Your task to perform on an android device: Go to calendar. Show me events next week Image 0: 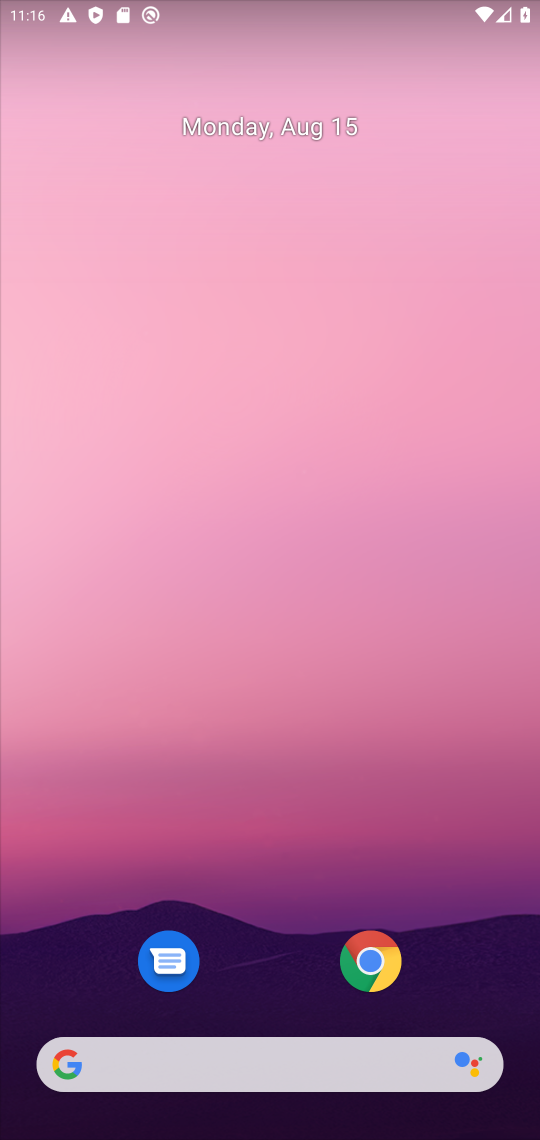
Step 0: drag from (474, 908) to (394, 303)
Your task to perform on an android device: Go to calendar. Show me events next week Image 1: 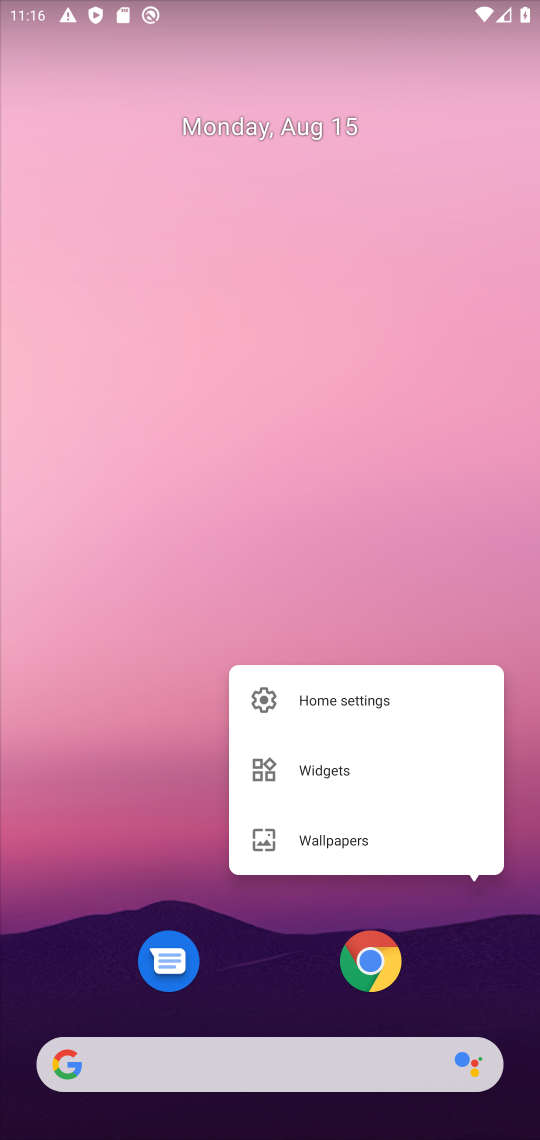
Step 1: click (435, 439)
Your task to perform on an android device: Go to calendar. Show me events next week Image 2: 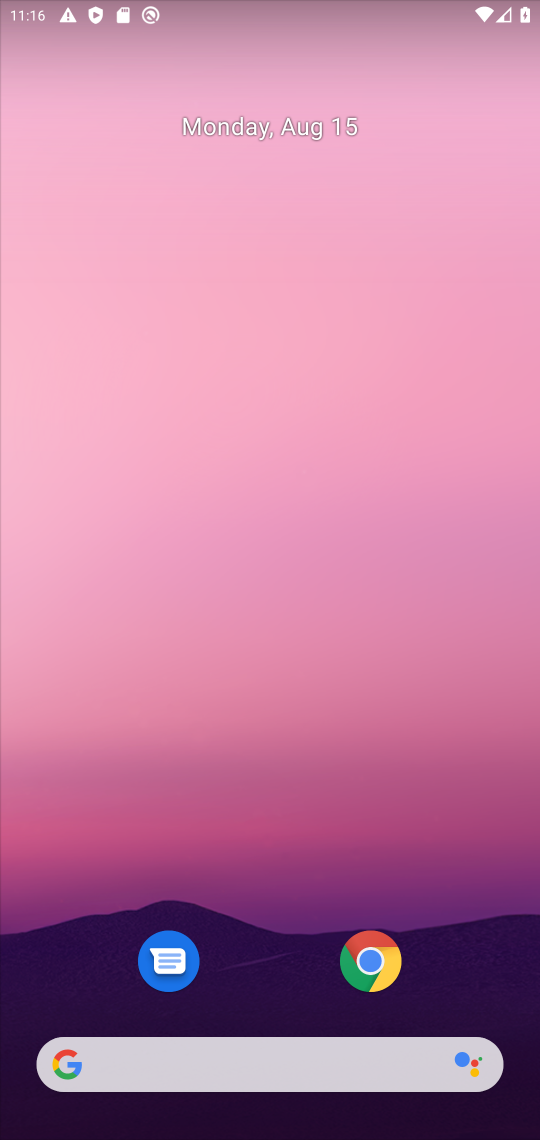
Step 2: drag from (480, 879) to (346, 186)
Your task to perform on an android device: Go to calendar. Show me events next week Image 3: 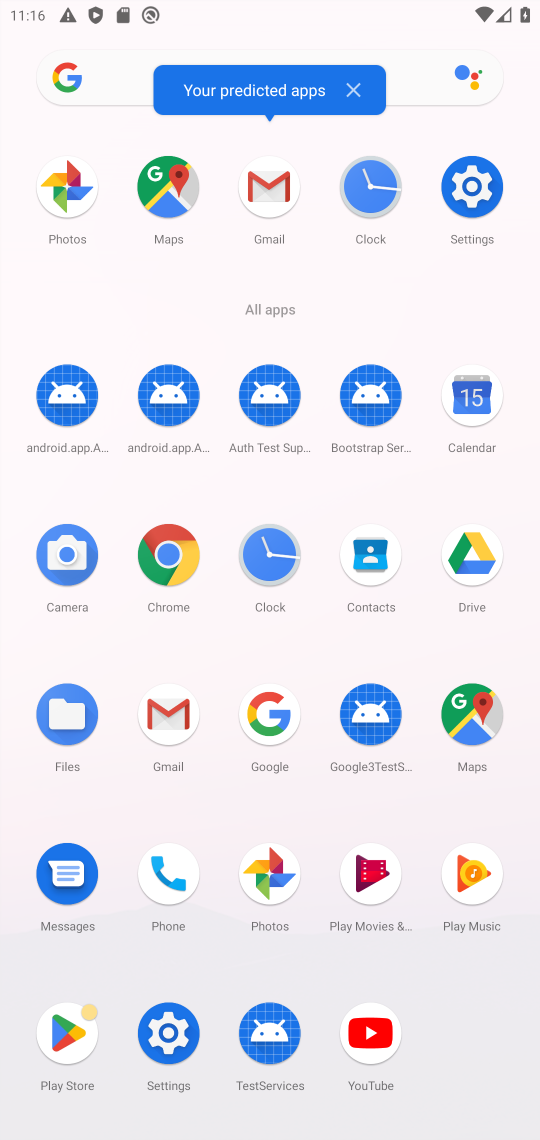
Step 3: click (470, 403)
Your task to perform on an android device: Go to calendar. Show me events next week Image 4: 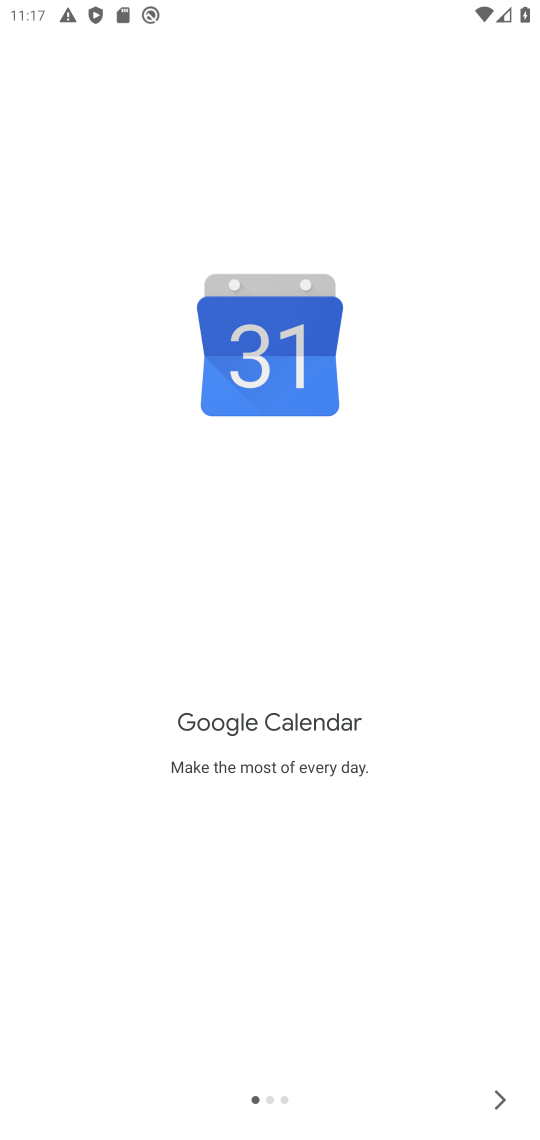
Step 4: click (498, 1104)
Your task to perform on an android device: Go to calendar. Show me events next week Image 5: 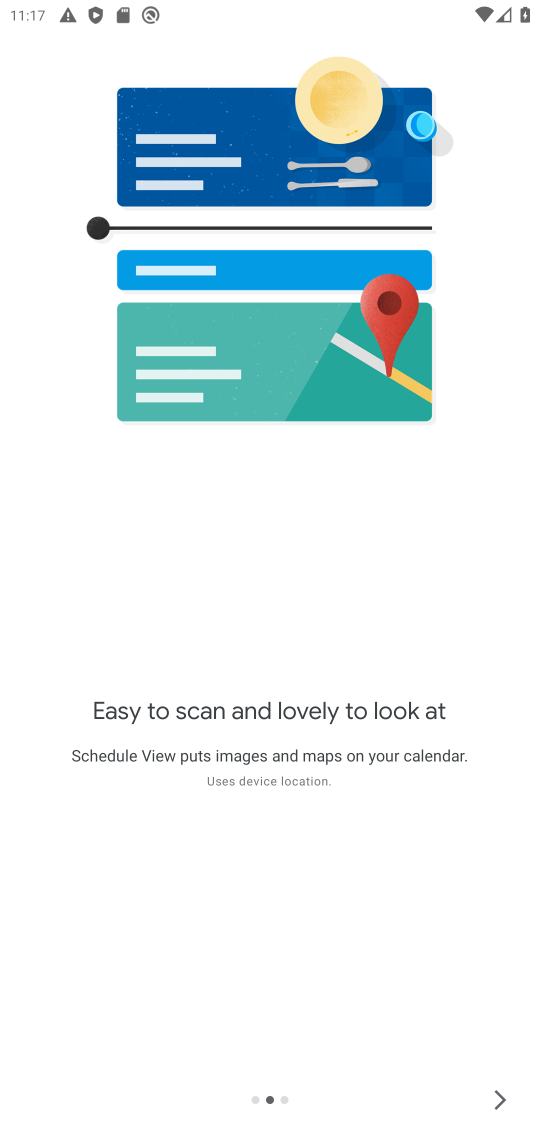
Step 5: click (498, 1104)
Your task to perform on an android device: Go to calendar. Show me events next week Image 6: 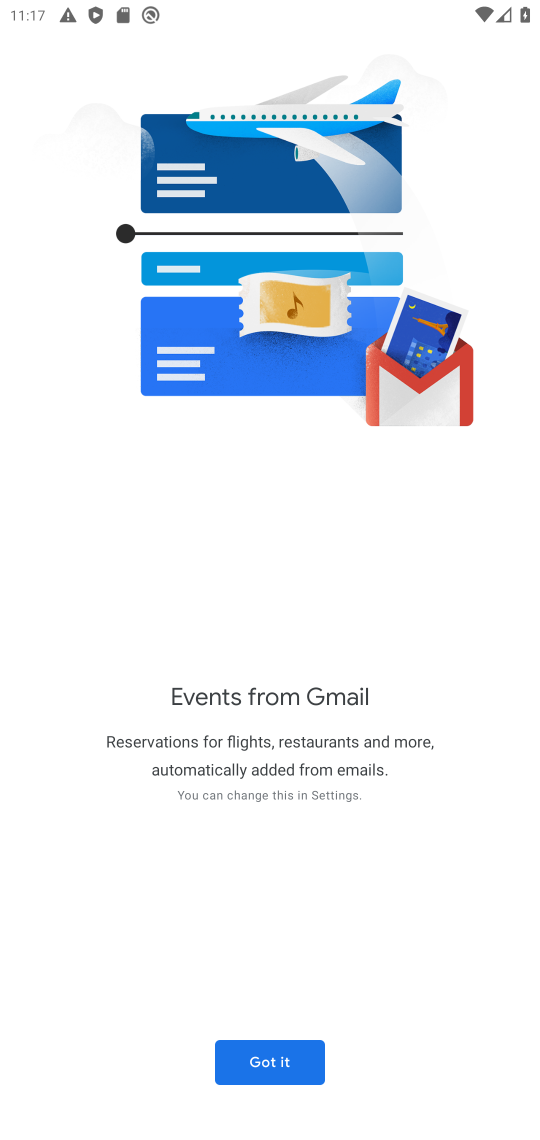
Step 6: click (288, 1076)
Your task to perform on an android device: Go to calendar. Show me events next week Image 7: 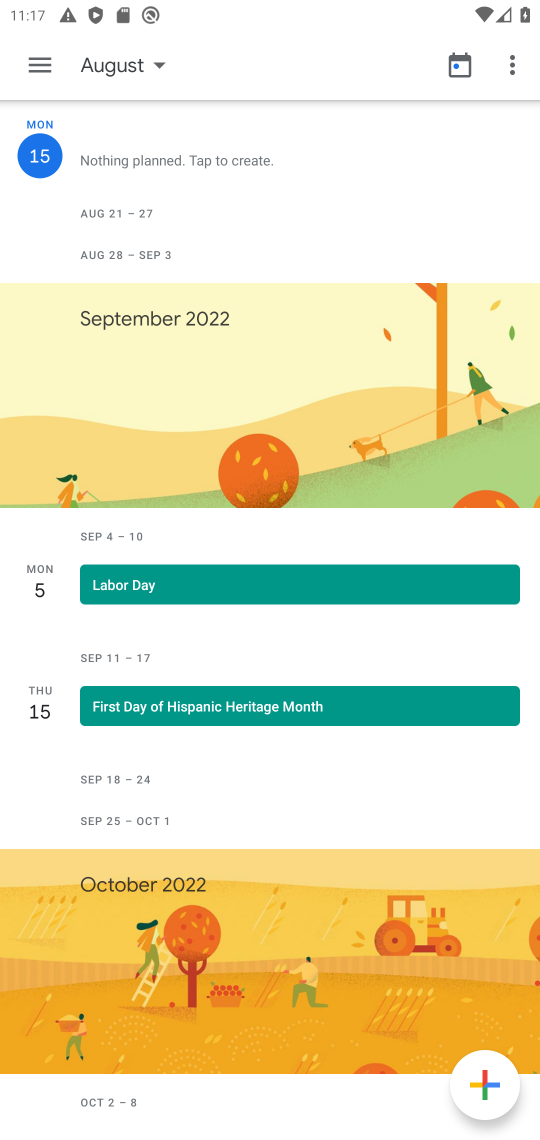
Step 7: click (39, 79)
Your task to perform on an android device: Go to calendar. Show me events next week Image 8: 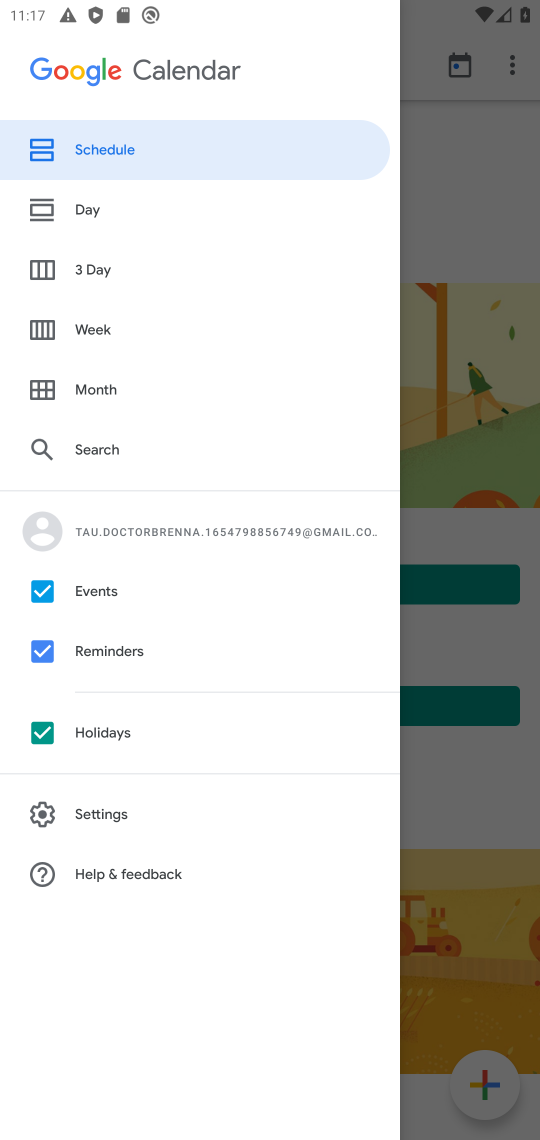
Step 8: click (140, 326)
Your task to perform on an android device: Go to calendar. Show me events next week Image 9: 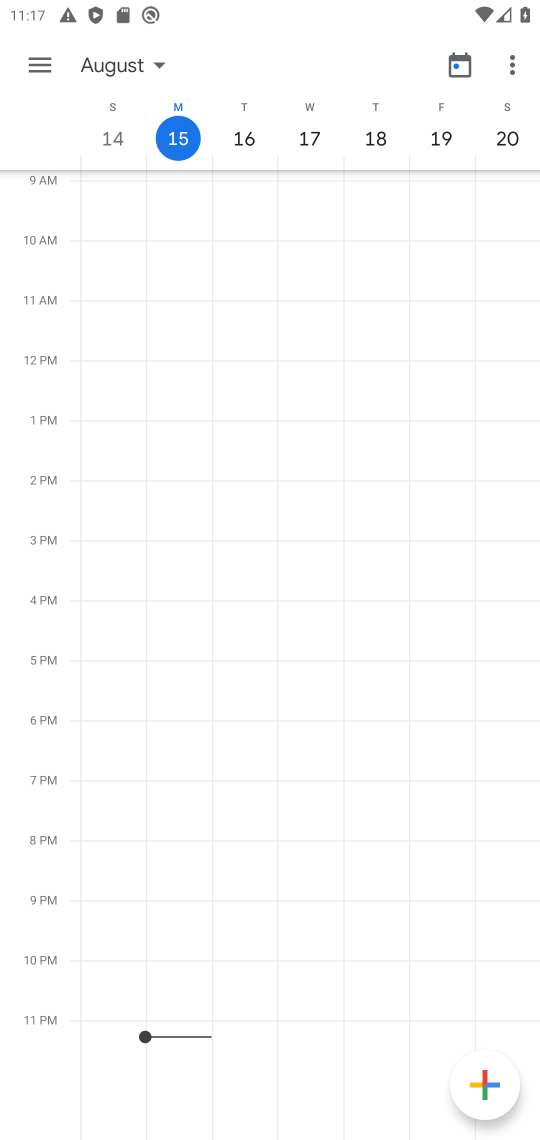
Step 9: drag from (415, 823) to (363, 459)
Your task to perform on an android device: Go to calendar. Show me events next week Image 10: 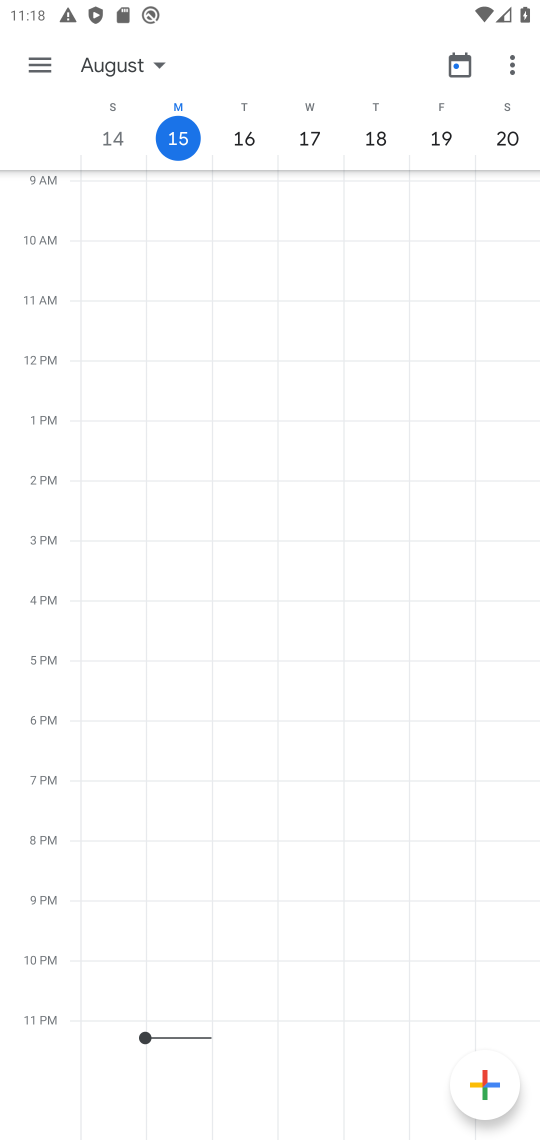
Step 10: press home button
Your task to perform on an android device: Go to calendar. Show me events next week Image 11: 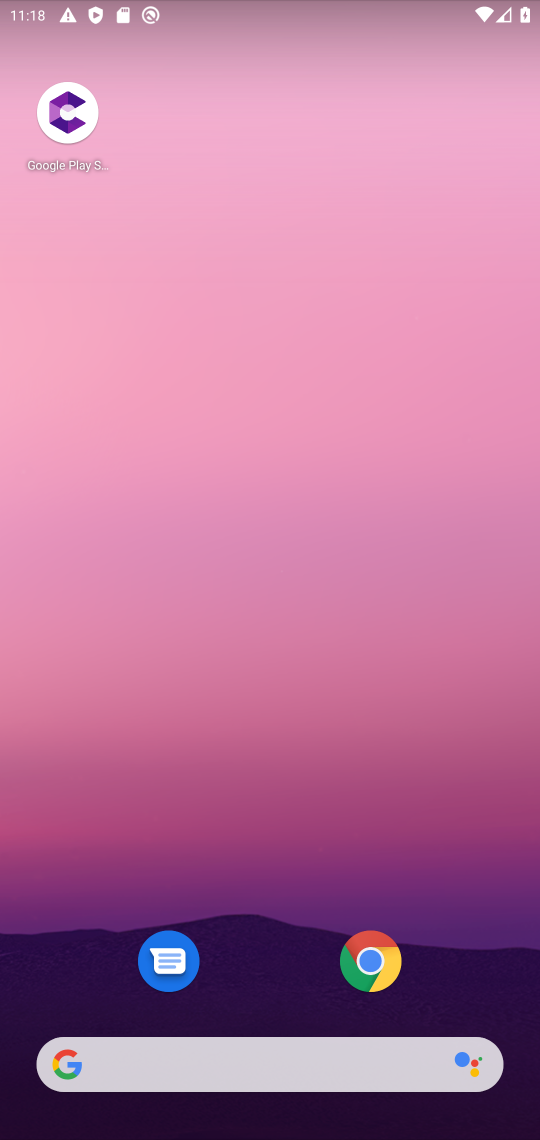
Step 11: drag from (282, 901) to (331, 210)
Your task to perform on an android device: Go to calendar. Show me events next week Image 12: 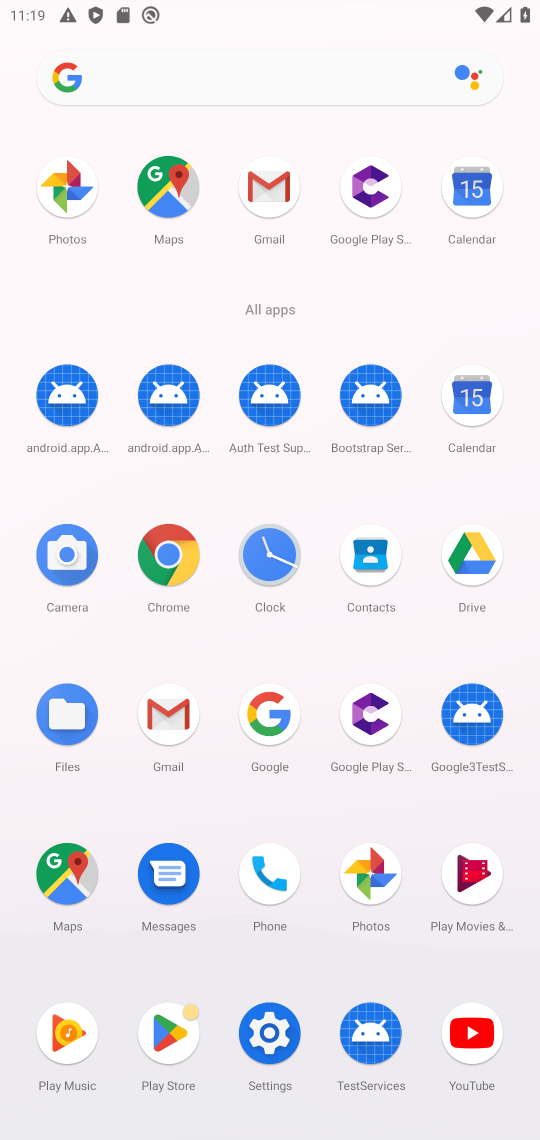
Step 12: click (475, 394)
Your task to perform on an android device: Go to calendar. Show me events next week Image 13: 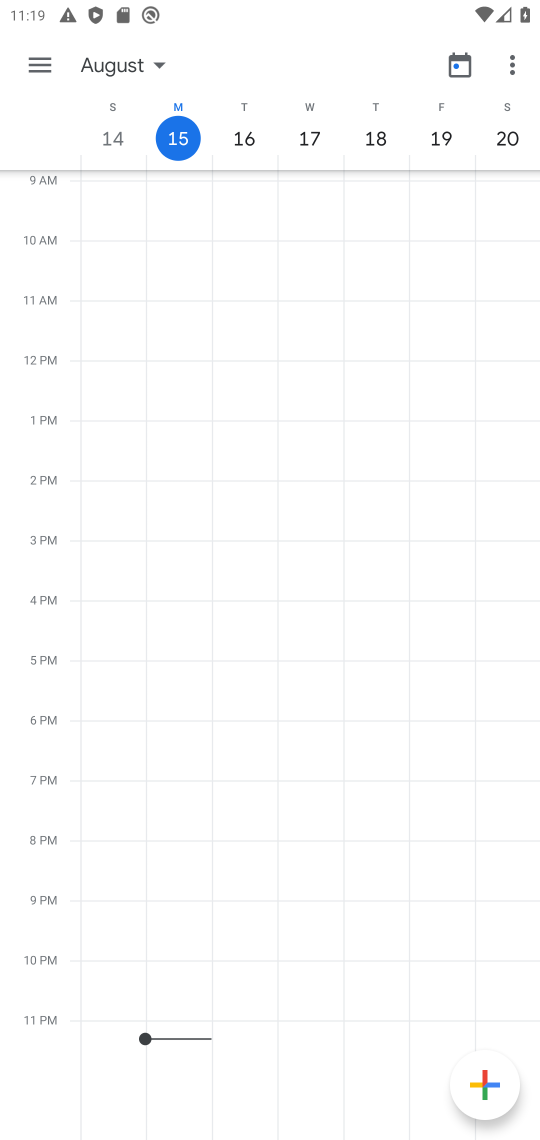
Step 13: click (137, 67)
Your task to perform on an android device: Go to calendar. Show me events next week Image 14: 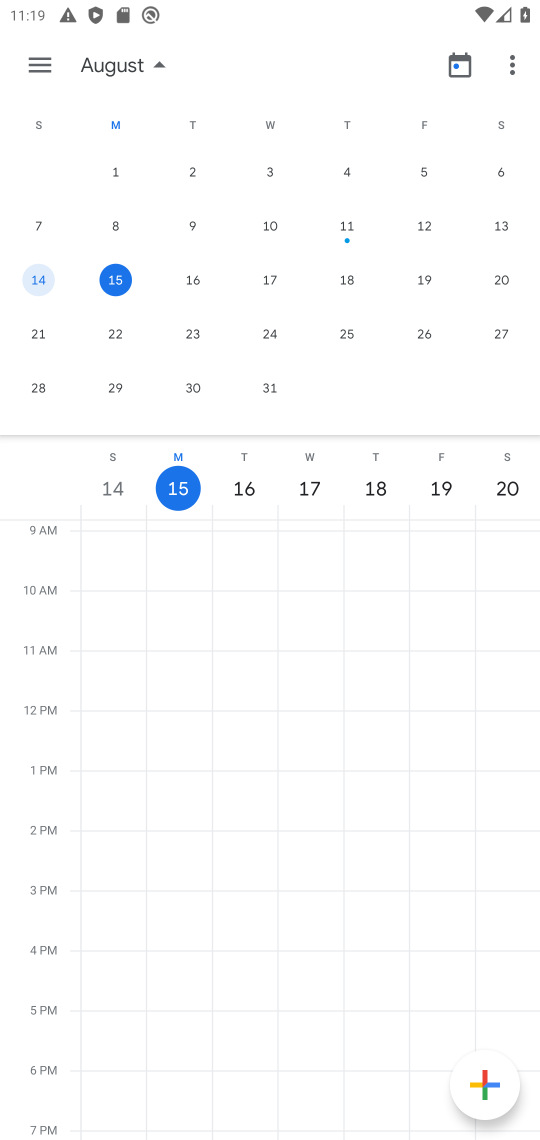
Step 14: click (183, 333)
Your task to perform on an android device: Go to calendar. Show me events next week Image 15: 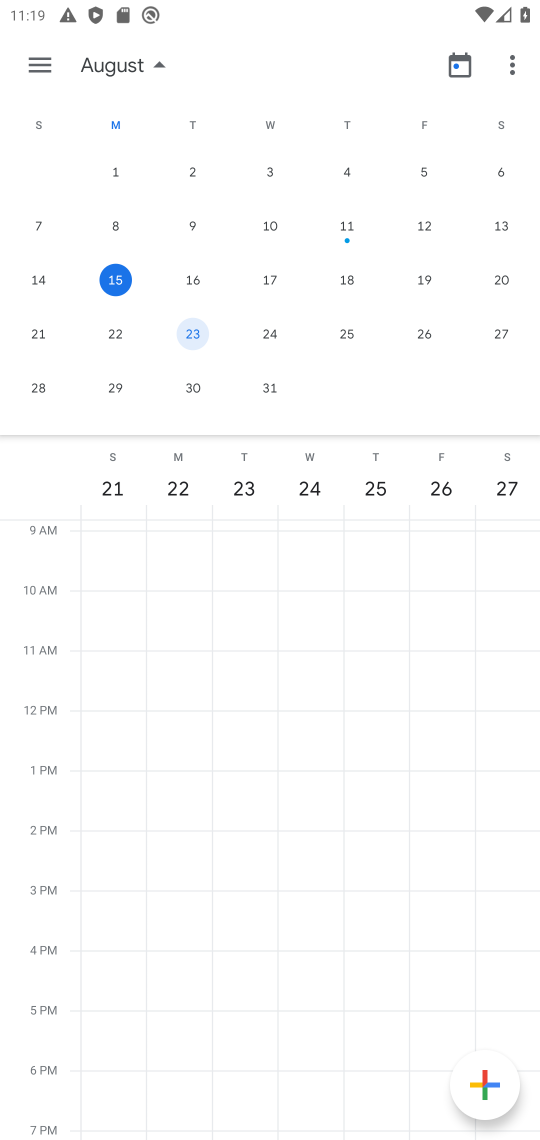
Step 15: task complete